Your task to perform on an android device: Open Chrome and go to settings Image 0: 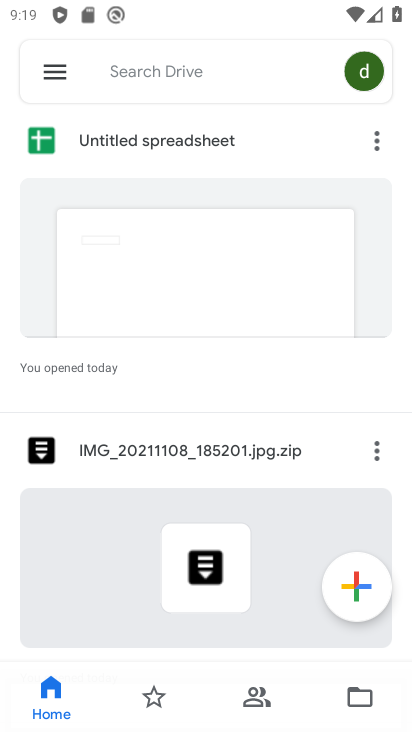
Step 0: press home button
Your task to perform on an android device: Open Chrome and go to settings Image 1: 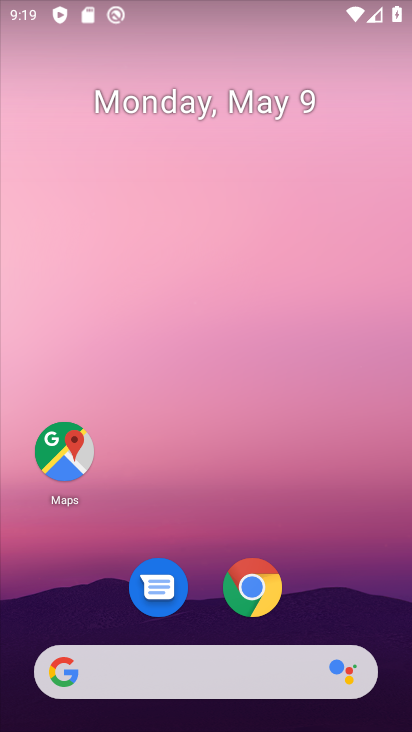
Step 1: click (251, 593)
Your task to perform on an android device: Open Chrome and go to settings Image 2: 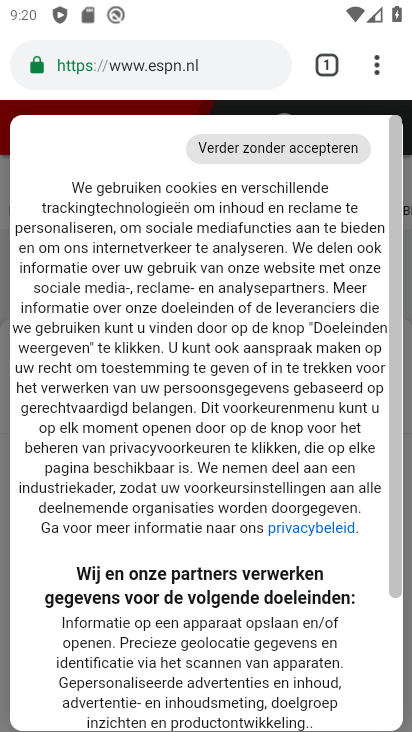
Step 2: click (376, 68)
Your task to perform on an android device: Open Chrome and go to settings Image 3: 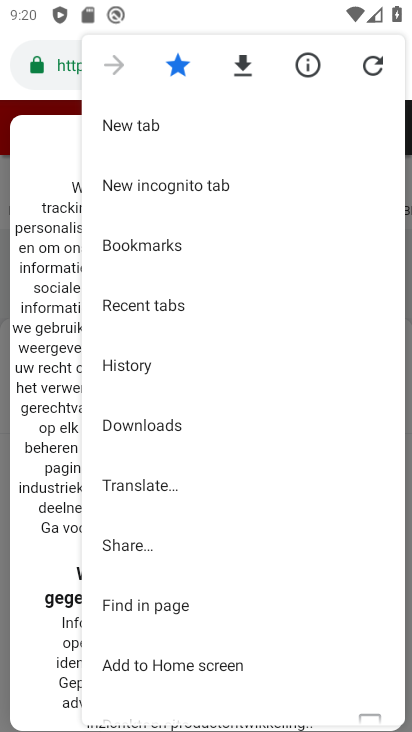
Step 3: drag from (237, 670) to (241, 428)
Your task to perform on an android device: Open Chrome and go to settings Image 4: 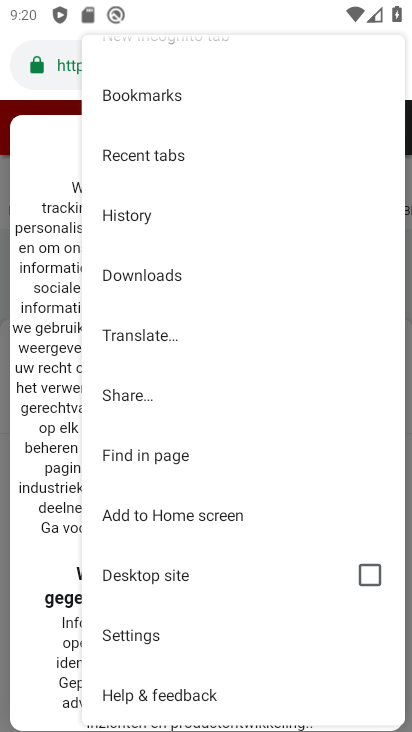
Step 4: click (132, 632)
Your task to perform on an android device: Open Chrome and go to settings Image 5: 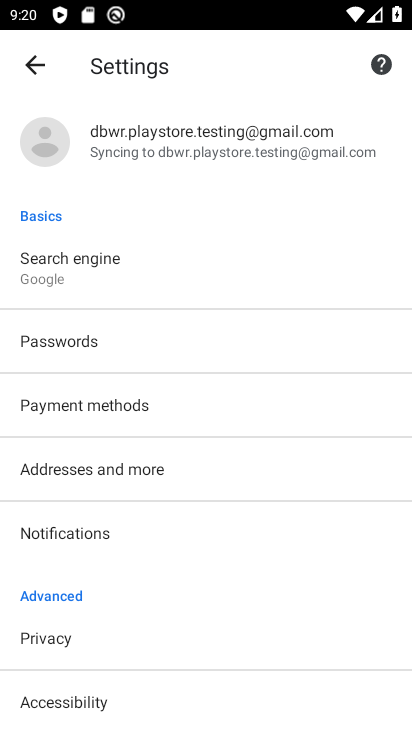
Step 5: task complete